Your task to perform on an android device: turn off data saver in the chrome app Image 0: 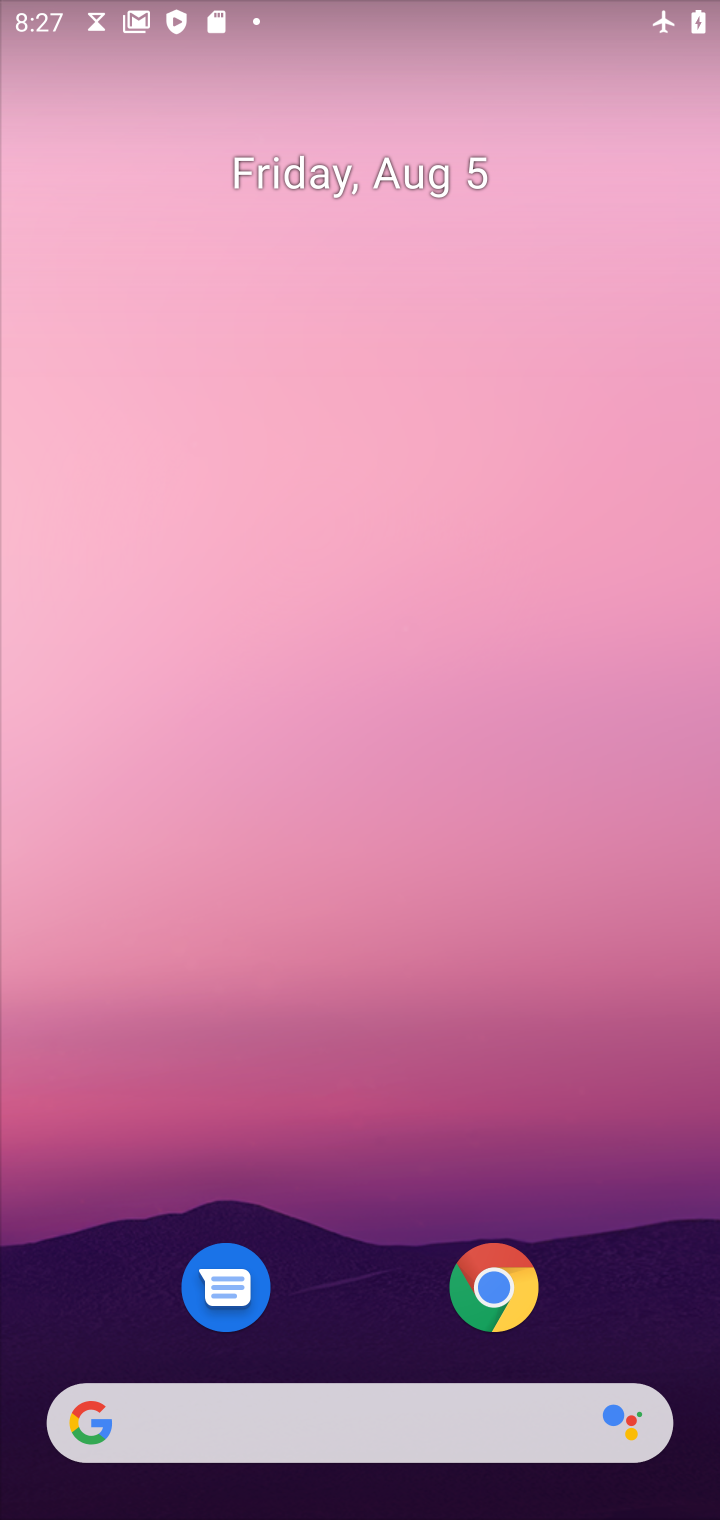
Step 0: click (495, 1316)
Your task to perform on an android device: turn off data saver in the chrome app Image 1: 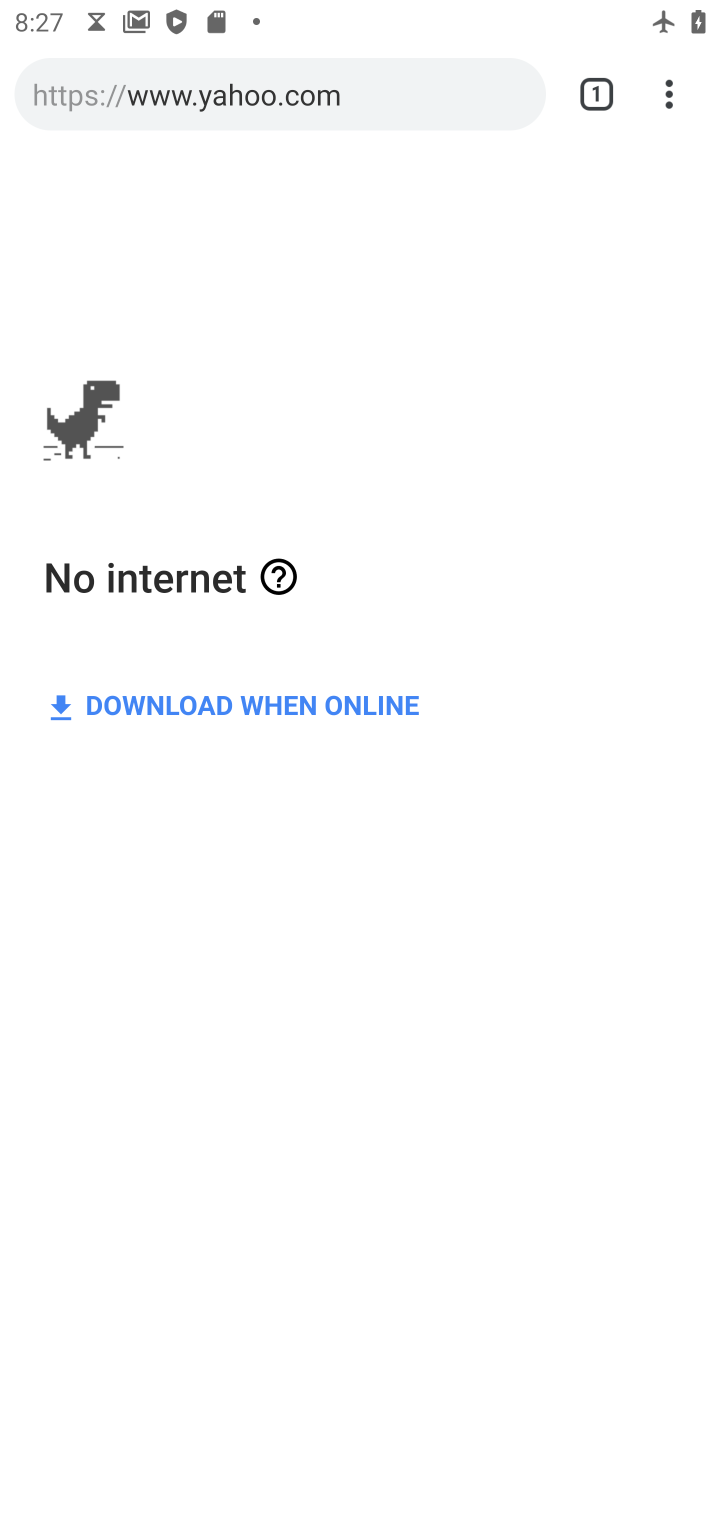
Step 1: click (669, 101)
Your task to perform on an android device: turn off data saver in the chrome app Image 2: 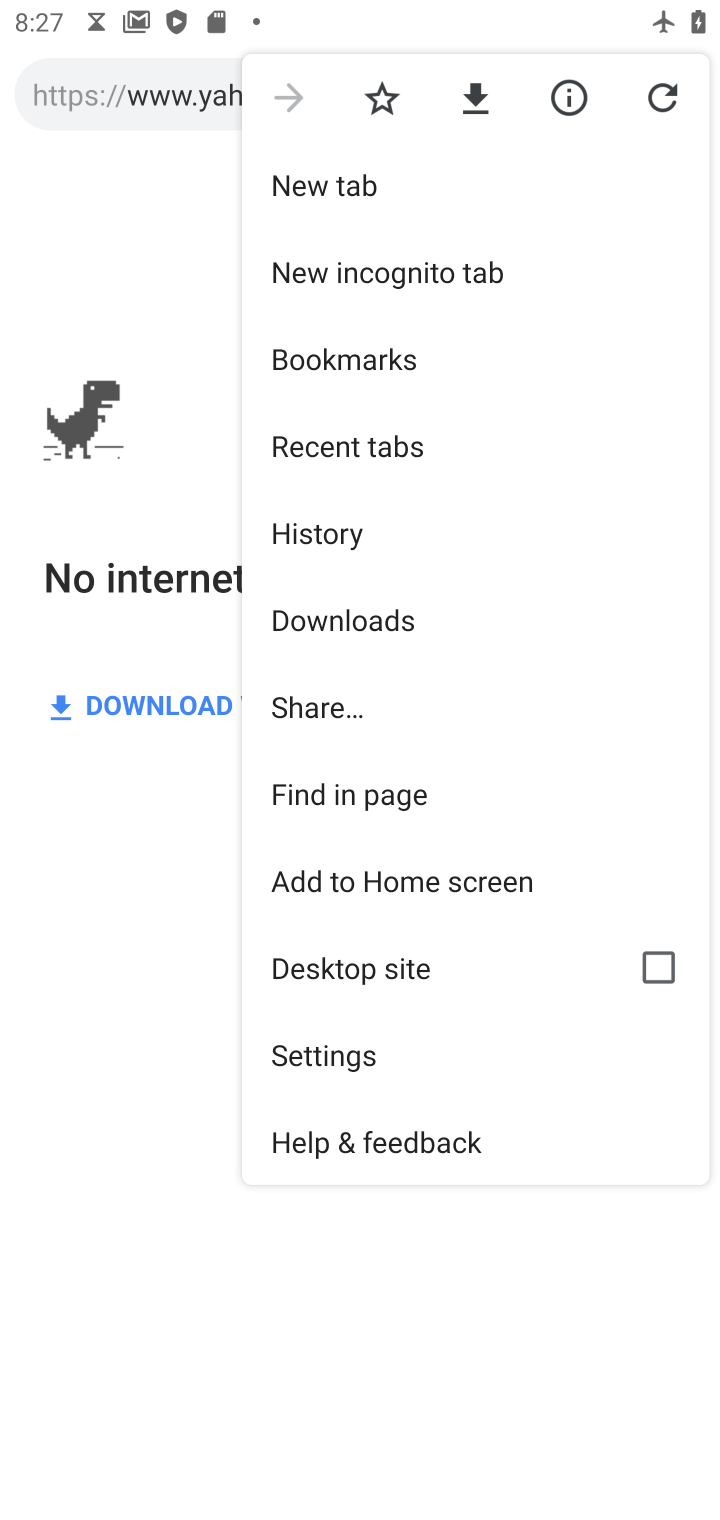
Step 2: click (340, 1051)
Your task to perform on an android device: turn off data saver in the chrome app Image 3: 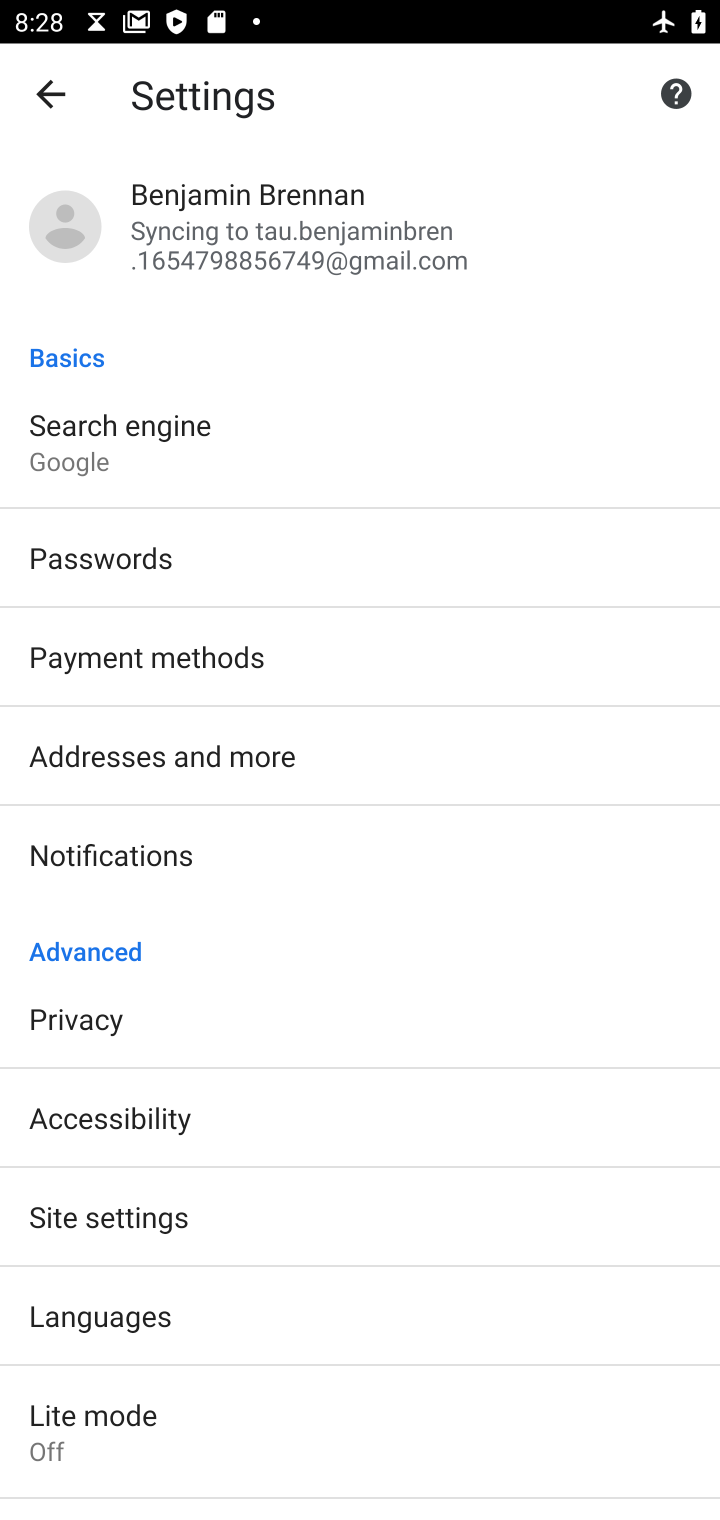
Step 3: drag from (109, 1380) to (113, 879)
Your task to perform on an android device: turn off data saver in the chrome app Image 4: 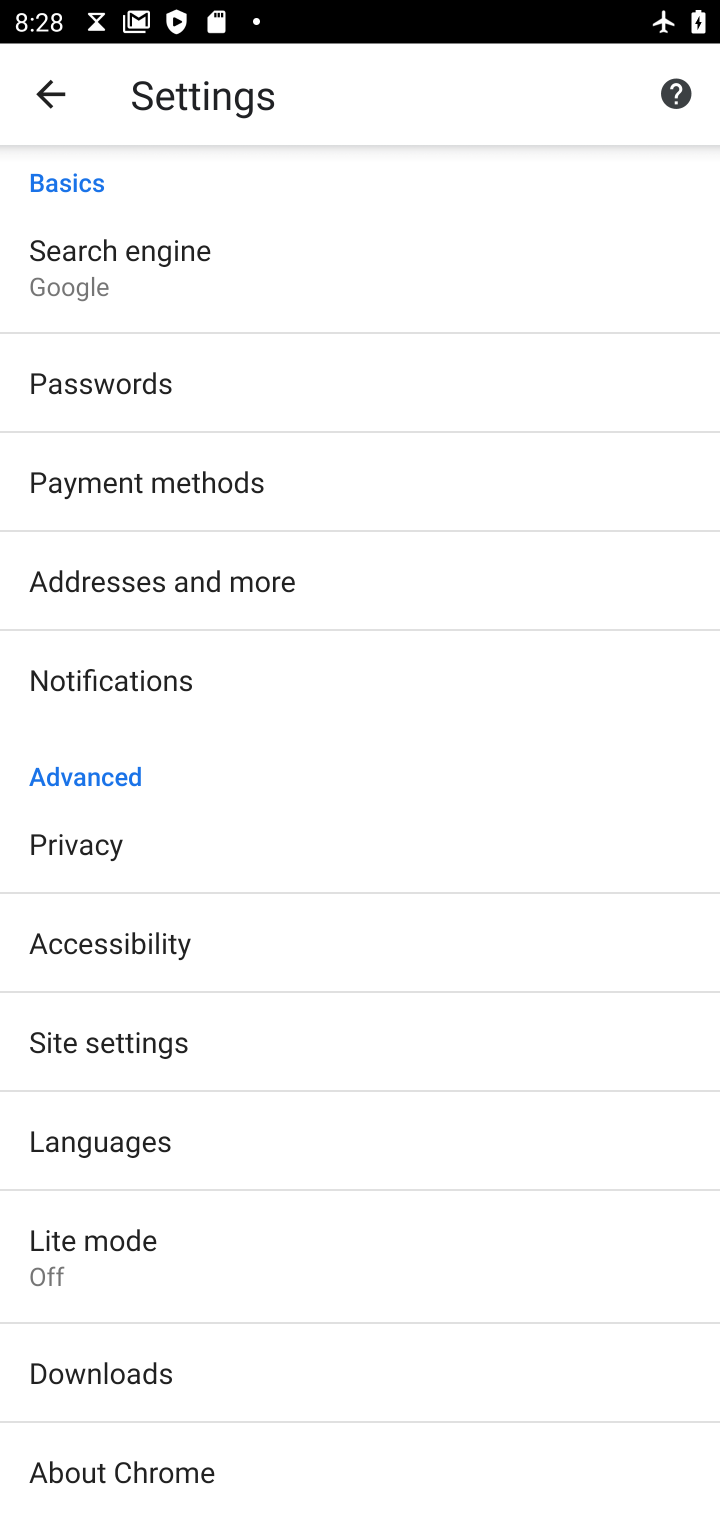
Step 4: click (215, 1038)
Your task to perform on an android device: turn off data saver in the chrome app Image 5: 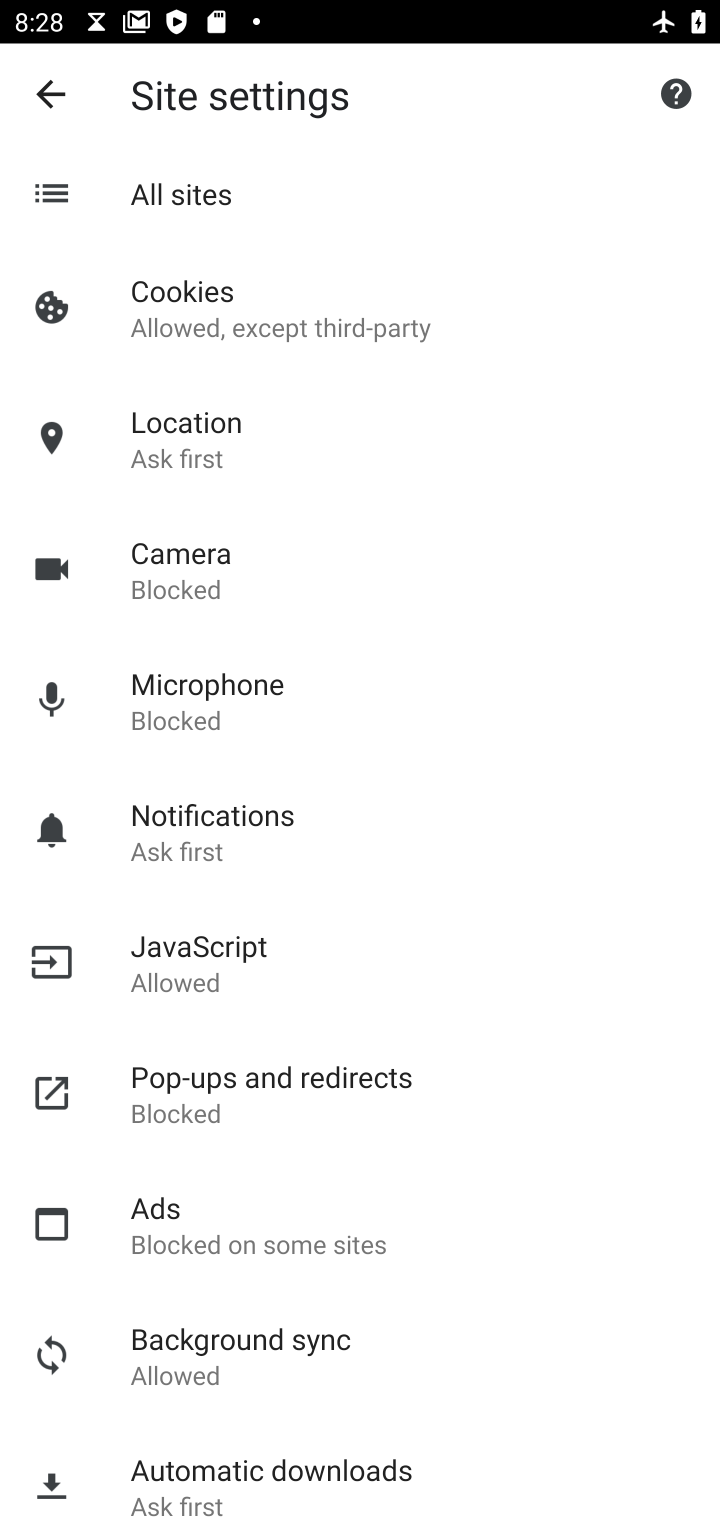
Step 5: click (42, 91)
Your task to perform on an android device: turn off data saver in the chrome app Image 6: 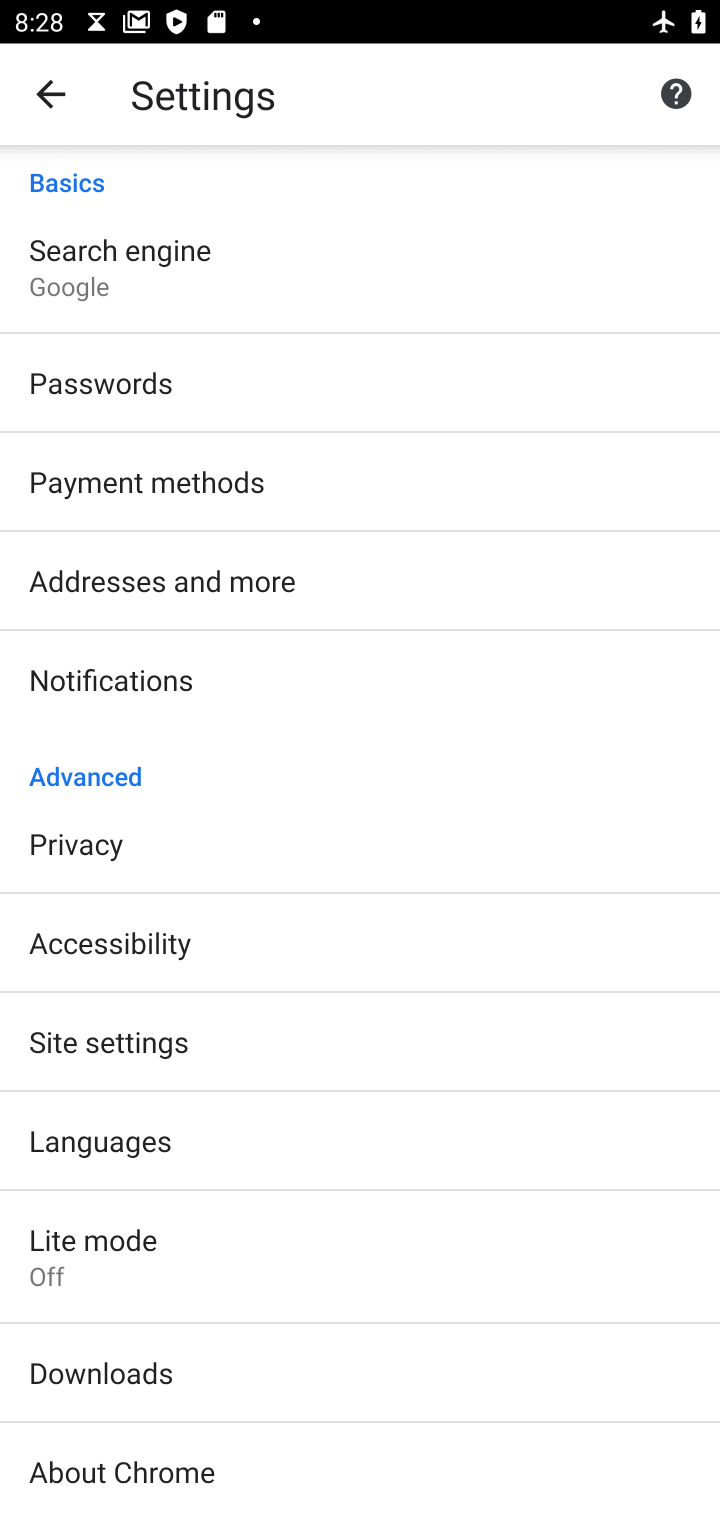
Step 6: click (90, 1248)
Your task to perform on an android device: turn off data saver in the chrome app Image 7: 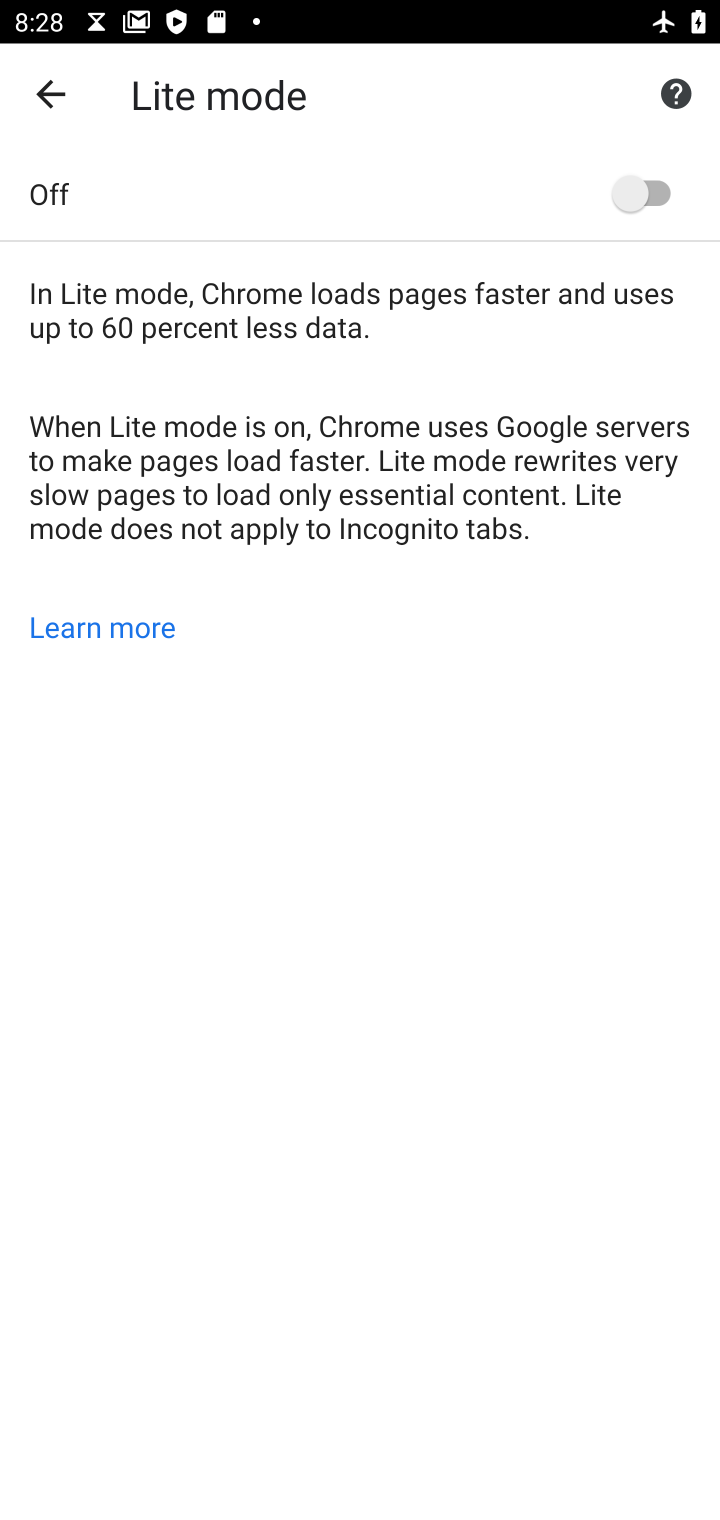
Step 7: task complete